Your task to perform on an android device: Open Google Chrome and click the shortcut for Amazon.com Image 0: 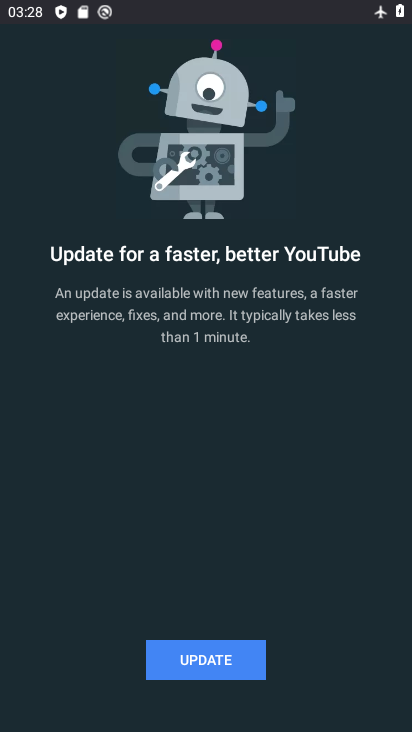
Step 0: press back button
Your task to perform on an android device: Open Google Chrome and click the shortcut for Amazon.com Image 1: 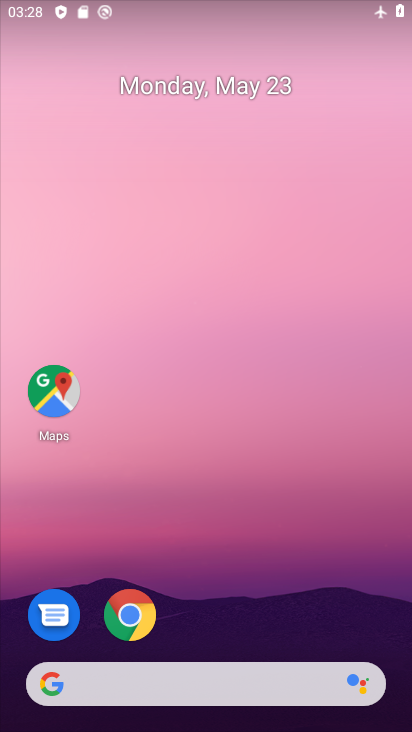
Step 1: click (135, 605)
Your task to perform on an android device: Open Google Chrome and click the shortcut for Amazon.com Image 2: 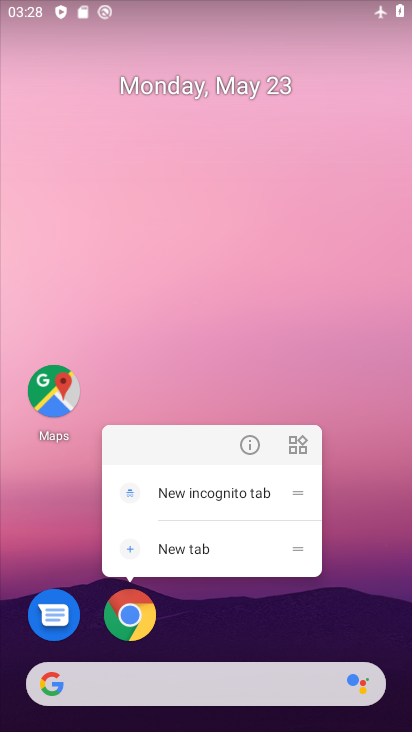
Step 2: click (161, 602)
Your task to perform on an android device: Open Google Chrome and click the shortcut for Amazon.com Image 3: 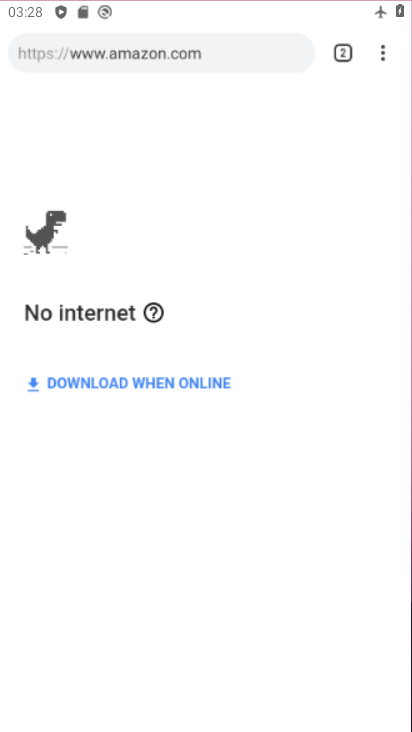
Step 3: click (136, 616)
Your task to perform on an android device: Open Google Chrome and click the shortcut for Amazon.com Image 4: 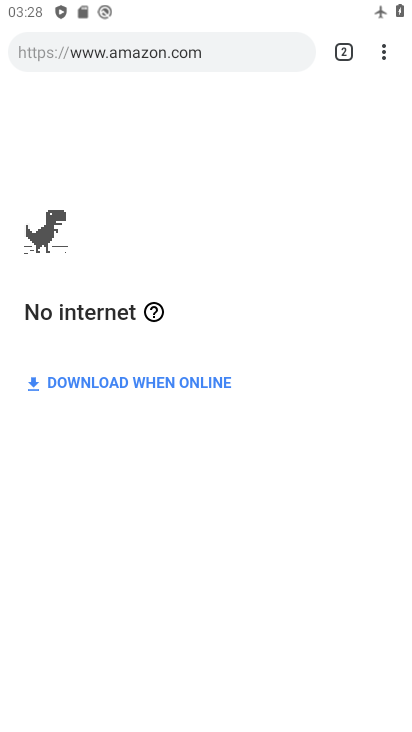
Step 4: click (395, 45)
Your task to perform on an android device: Open Google Chrome and click the shortcut for Amazon.com Image 5: 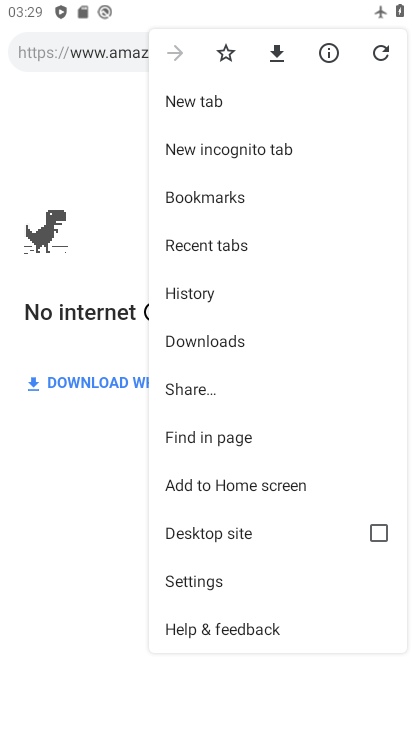
Step 5: click (208, 108)
Your task to perform on an android device: Open Google Chrome and click the shortcut for Amazon.com Image 6: 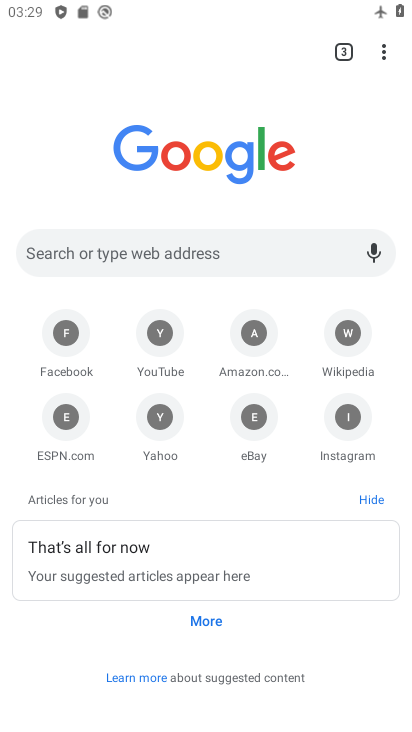
Step 6: click (264, 332)
Your task to perform on an android device: Open Google Chrome and click the shortcut for Amazon.com Image 7: 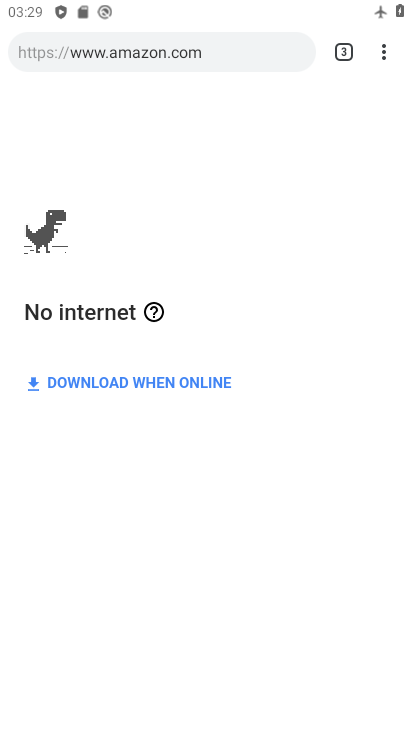
Step 7: task complete